Your task to perform on an android device: set an alarm Image 0: 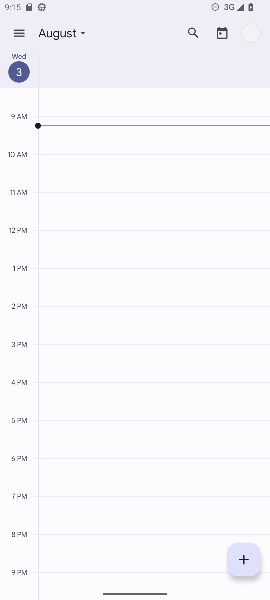
Step 0: press home button
Your task to perform on an android device: set an alarm Image 1: 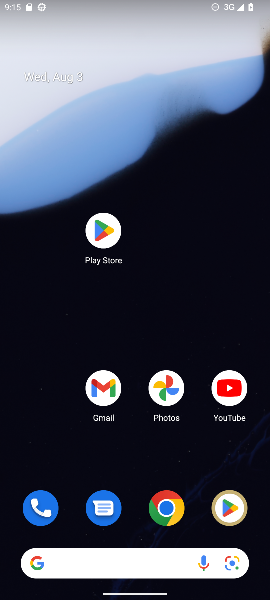
Step 1: click (165, 508)
Your task to perform on an android device: set an alarm Image 2: 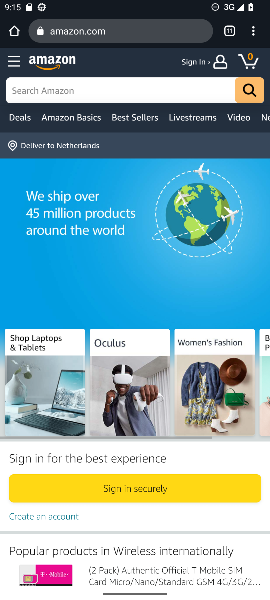
Step 2: press home button
Your task to perform on an android device: set an alarm Image 3: 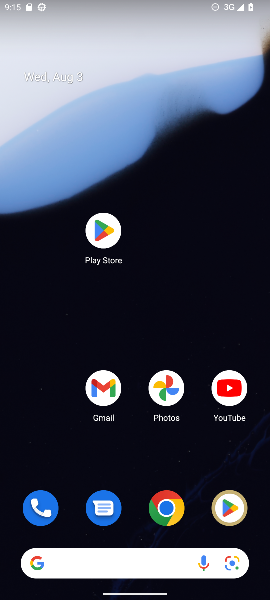
Step 3: drag from (139, 527) to (121, 44)
Your task to perform on an android device: set an alarm Image 4: 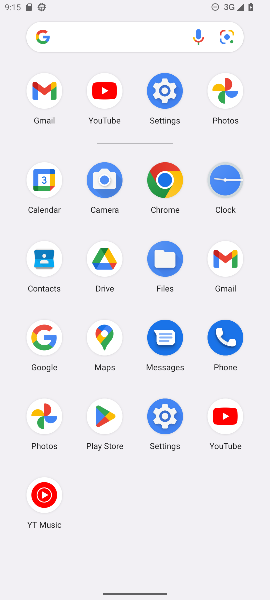
Step 4: click (221, 184)
Your task to perform on an android device: set an alarm Image 5: 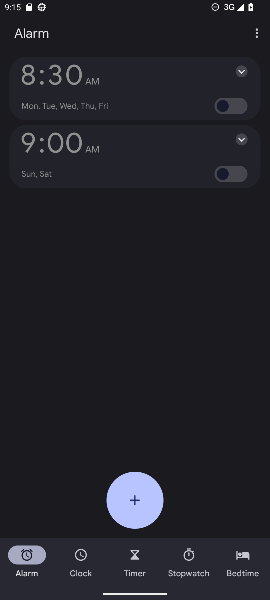
Step 5: click (130, 512)
Your task to perform on an android device: set an alarm Image 6: 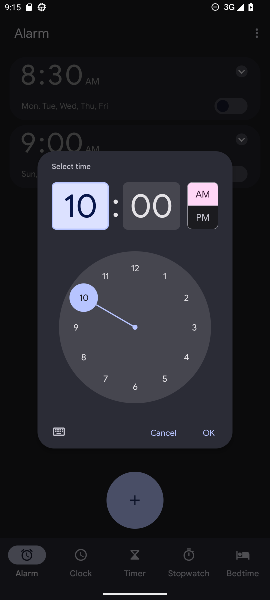
Step 6: click (205, 436)
Your task to perform on an android device: set an alarm Image 7: 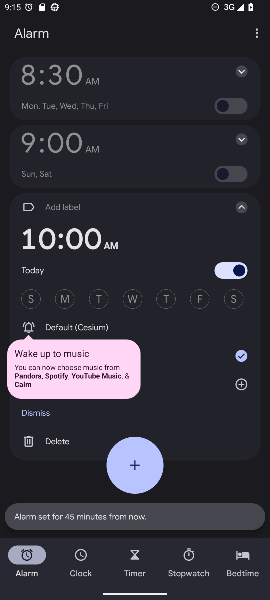
Step 7: task complete